Your task to perform on an android device: Open Amazon Image 0: 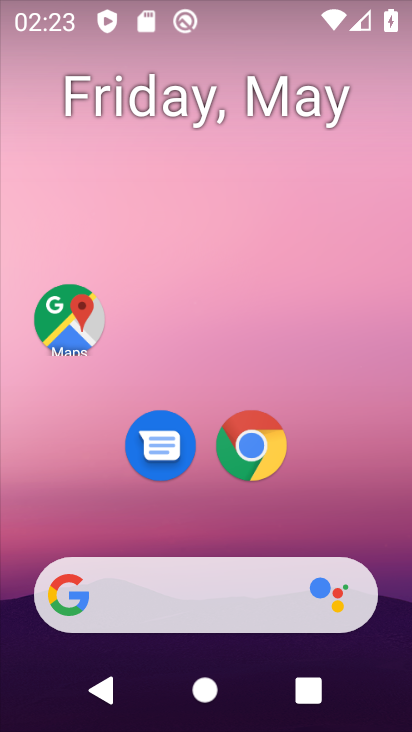
Step 0: click (255, 474)
Your task to perform on an android device: Open Amazon Image 1: 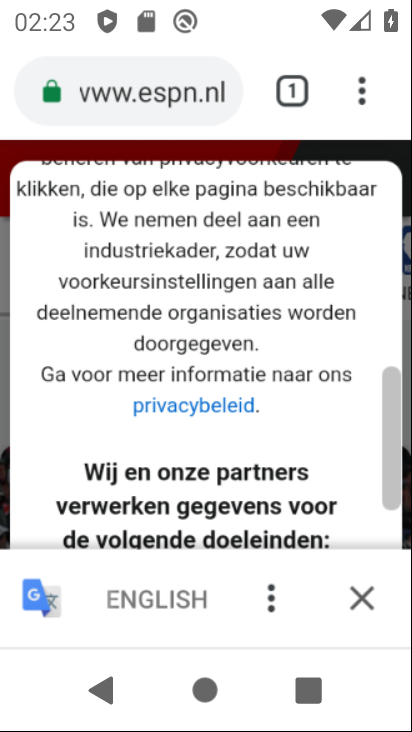
Step 1: click (361, 105)
Your task to perform on an android device: Open Amazon Image 2: 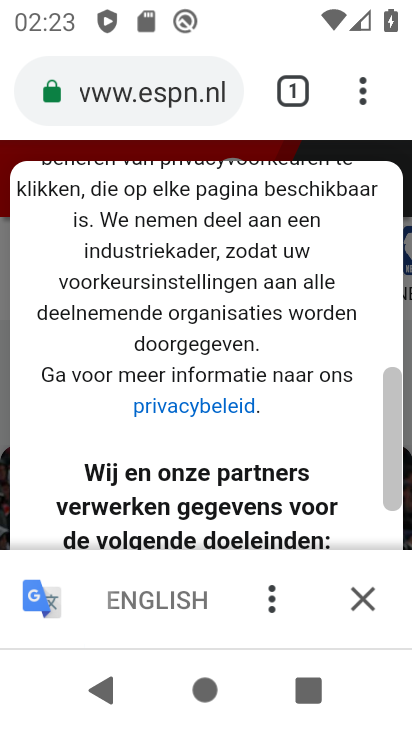
Step 2: drag from (355, 102) to (300, 175)
Your task to perform on an android device: Open Amazon Image 3: 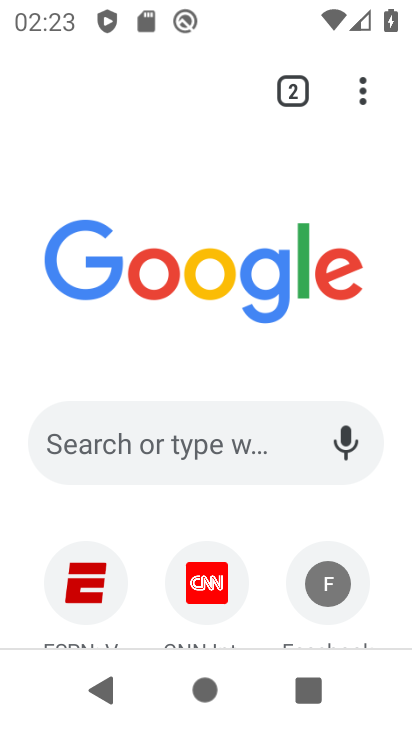
Step 3: drag from (240, 603) to (385, 278)
Your task to perform on an android device: Open Amazon Image 4: 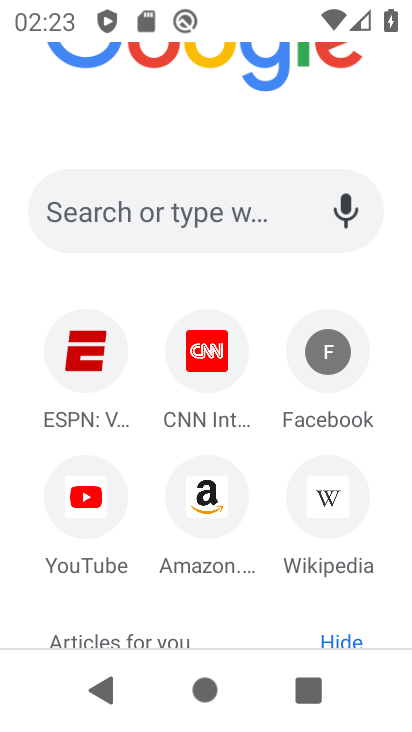
Step 4: click (223, 519)
Your task to perform on an android device: Open Amazon Image 5: 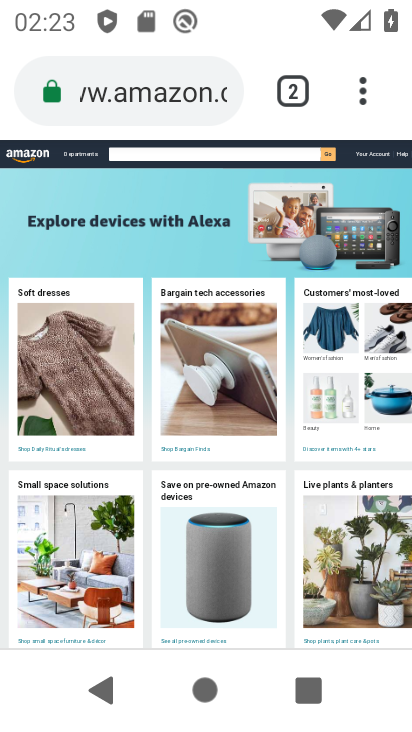
Step 5: task complete